Your task to perform on an android device: Show me the alarms in the clock app Image 0: 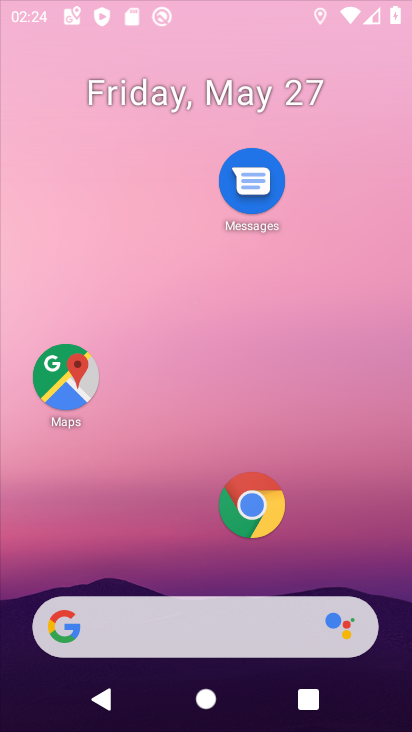
Step 0: click (211, 193)
Your task to perform on an android device: Show me the alarms in the clock app Image 1: 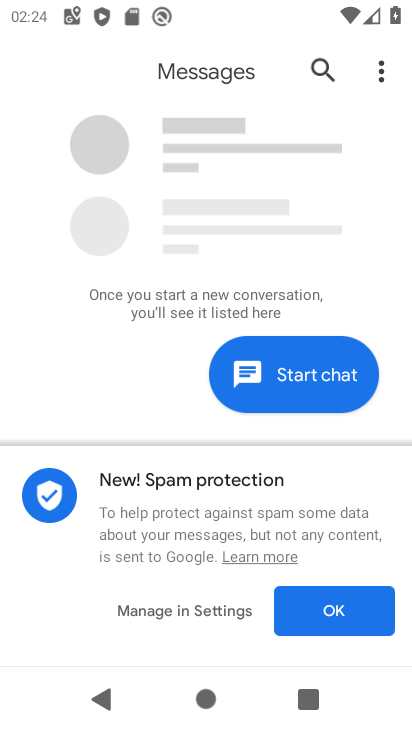
Step 1: press home button
Your task to perform on an android device: Show me the alarms in the clock app Image 2: 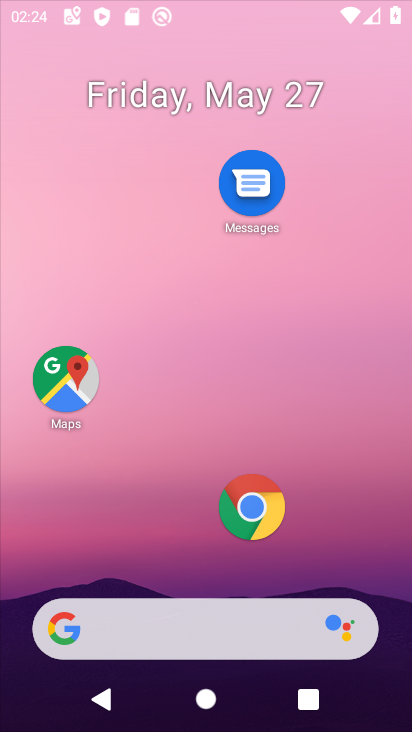
Step 2: drag from (217, 636) to (212, 132)
Your task to perform on an android device: Show me the alarms in the clock app Image 3: 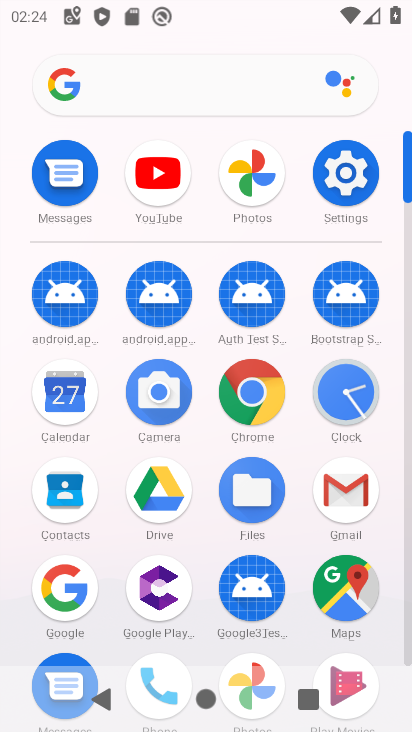
Step 3: click (328, 403)
Your task to perform on an android device: Show me the alarms in the clock app Image 4: 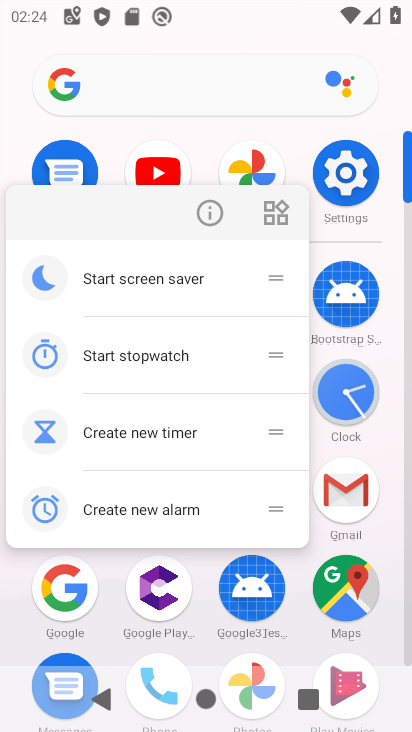
Step 4: click (205, 213)
Your task to perform on an android device: Show me the alarms in the clock app Image 5: 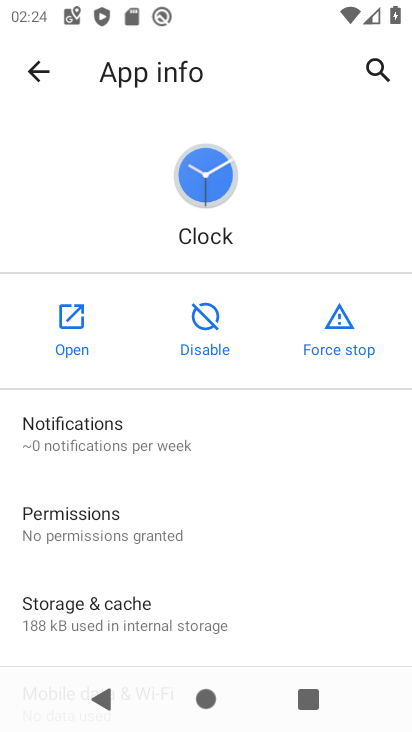
Step 5: click (73, 331)
Your task to perform on an android device: Show me the alarms in the clock app Image 6: 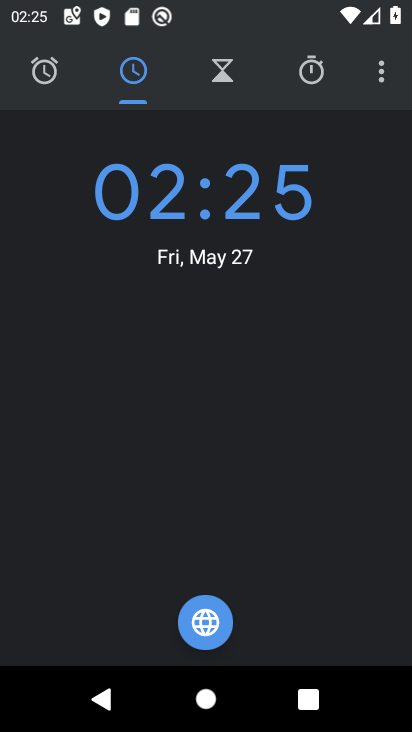
Step 6: click (59, 69)
Your task to perform on an android device: Show me the alarms in the clock app Image 7: 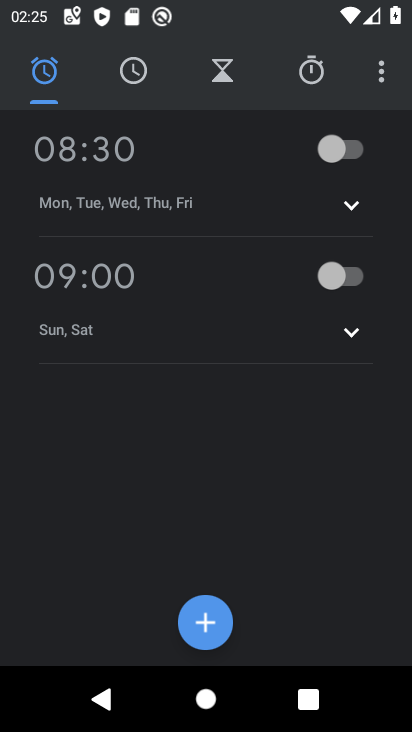
Step 7: task complete